Your task to perform on an android device: change notifications settings Image 0: 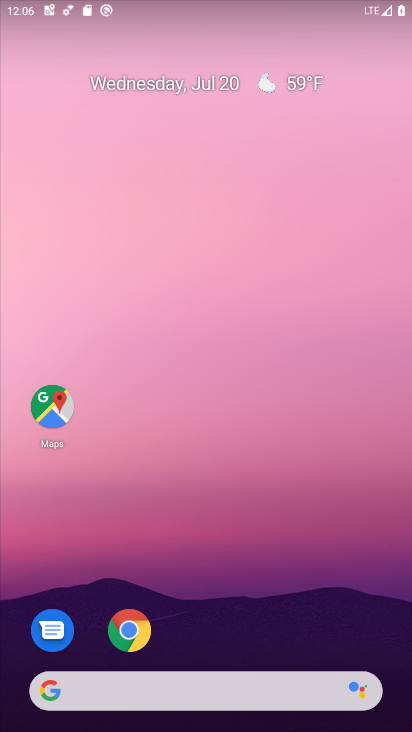
Step 0: drag from (381, 657) to (330, 235)
Your task to perform on an android device: change notifications settings Image 1: 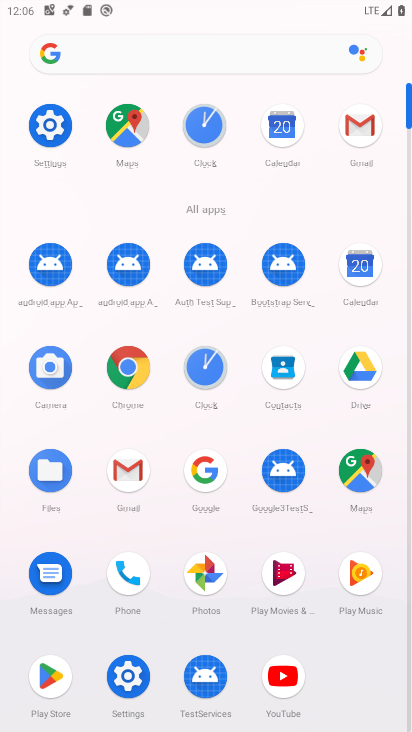
Step 1: click (125, 677)
Your task to perform on an android device: change notifications settings Image 2: 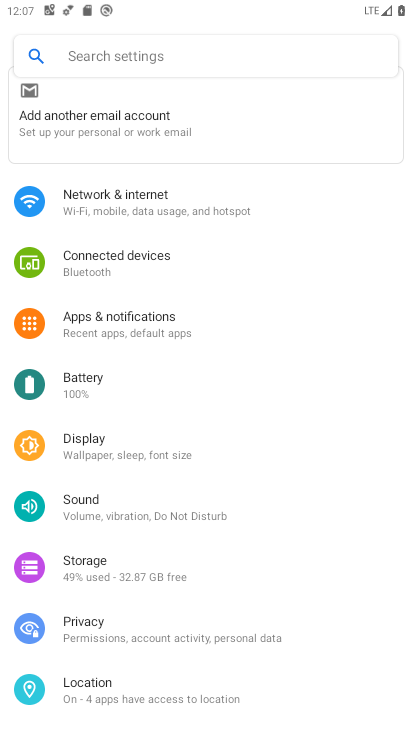
Step 2: click (112, 323)
Your task to perform on an android device: change notifications settings Image 3: 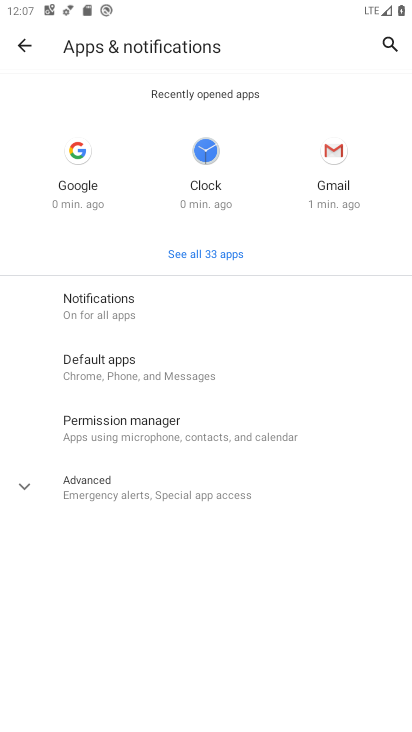
Step 3: click (100, 302)
Your task to perform on an android device: change notifications settings Image 4: 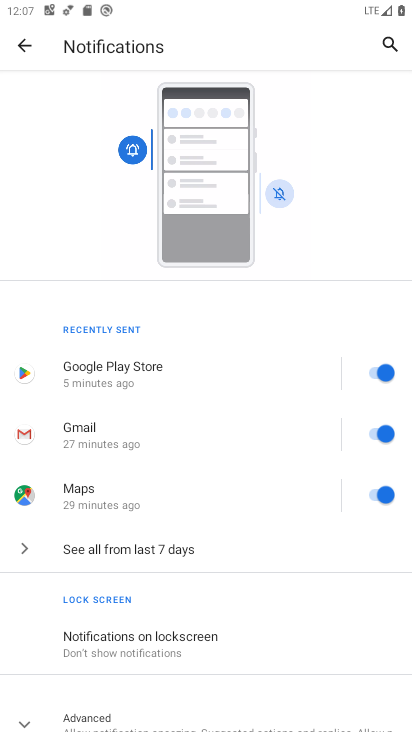
Step 4: drag from (228, 654) to (218, 222)
Your task to perform on an android device: change notifications settings Image 5: 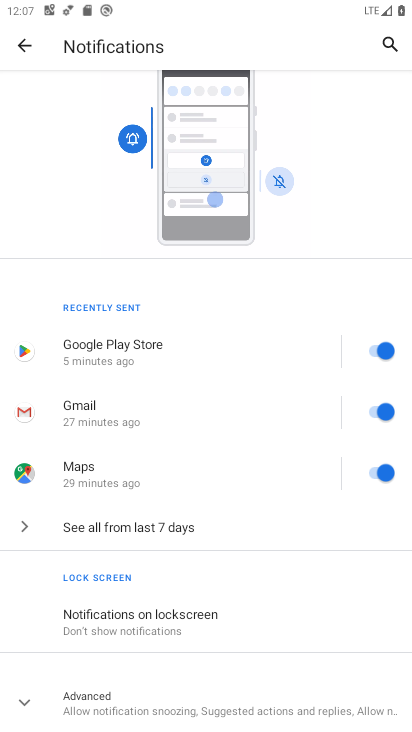
Step 5: click (18, 705)
Your task to perform on an android device: change notifications settings Image 6: 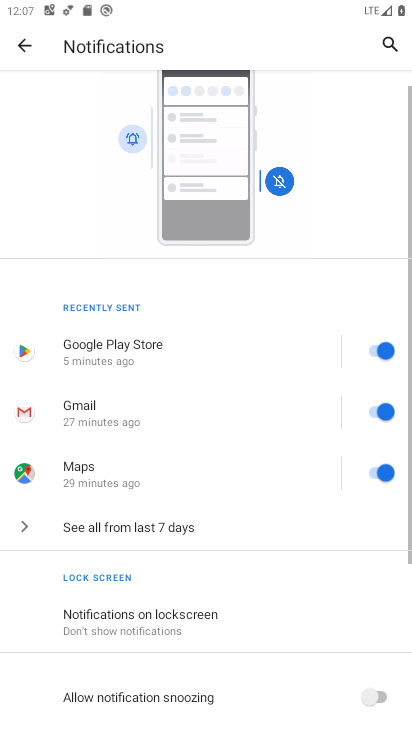
Step 6: drag from (280, 640) to (292, 171)
Your task to perform on an android device: change notifications settings Image 7: 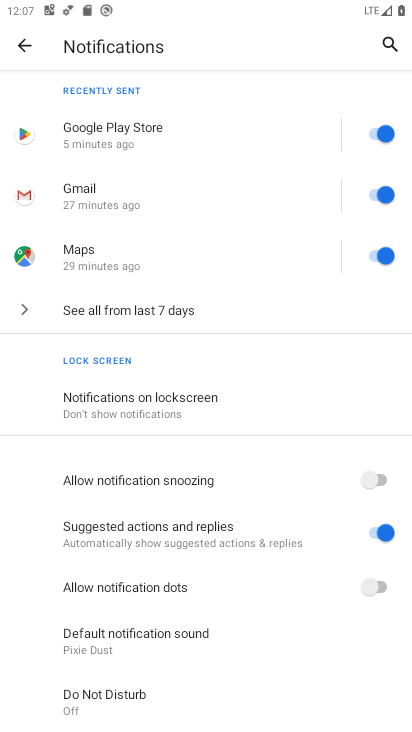
Step 7: click (382, 480)
Your task to perform on an android device: change notifications settings Image 8: 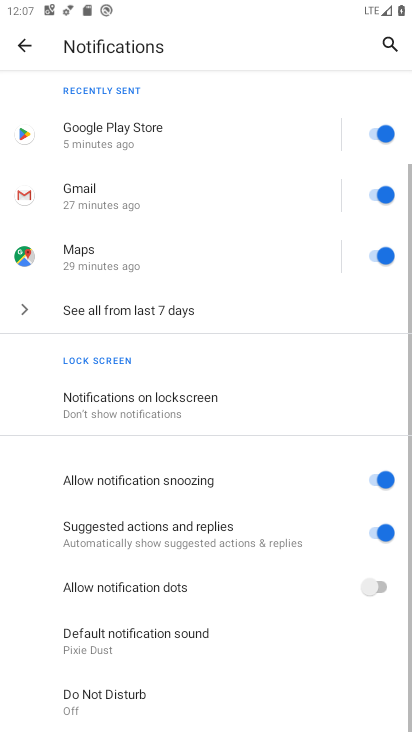
Step 8: click (385, 583)
Your task to perform on an android device: change notifications settings Image 9: 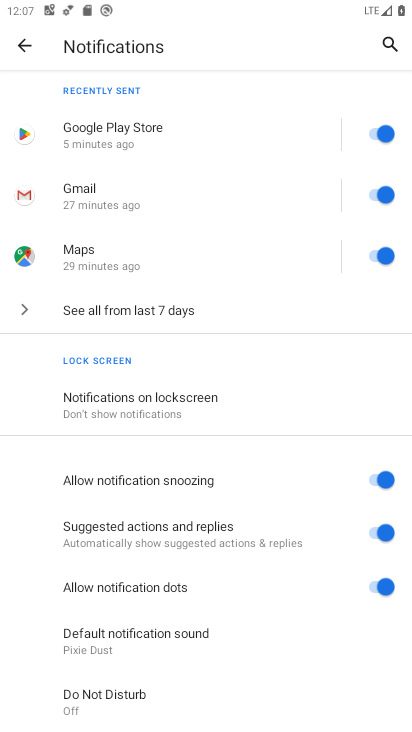
Step 9: task complete